Your task to perform on an android device: Open calendar and show me the first week of next month Image 0: 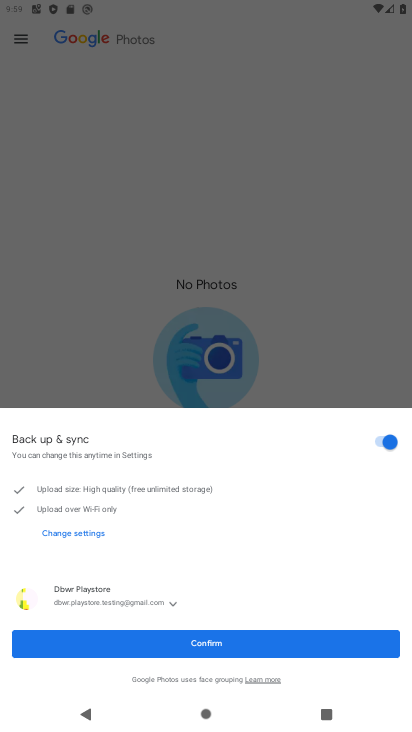
Step 0: press home button
Your task to perform on an android device: Open calendar and show me the first week of next month Image 1: 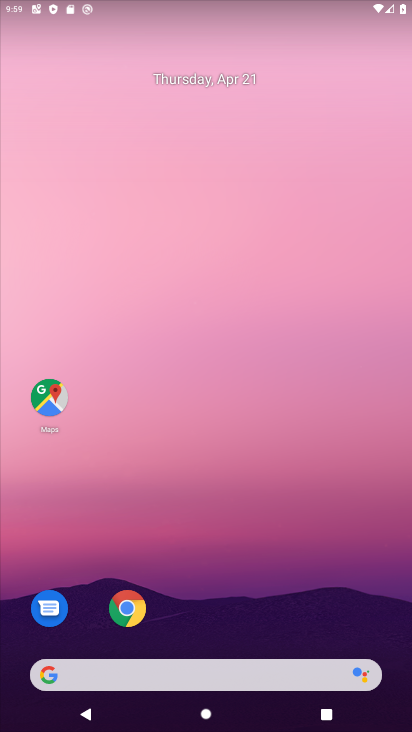
Step 1: drag from (208, 539) to (236, 93)
Your task to perform on an android device: Open calendar and show me the first week of next month Image 2: 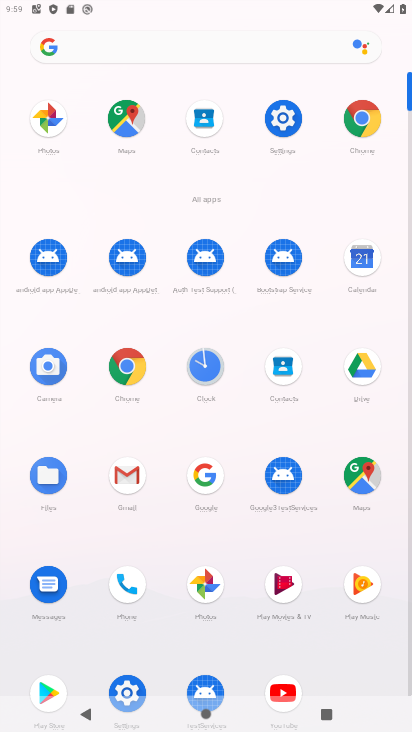
Step 2: click (370, 265)
Your task to perform on an android device: Open calendar and show me the first week of next month Image 3: 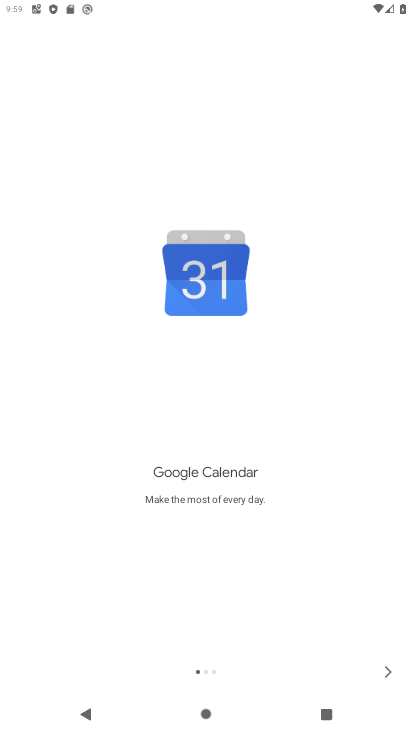
Step 3: click (382, 670)
Your task to perform on an android device: Open calendar and show me the first week of next month Image 4: 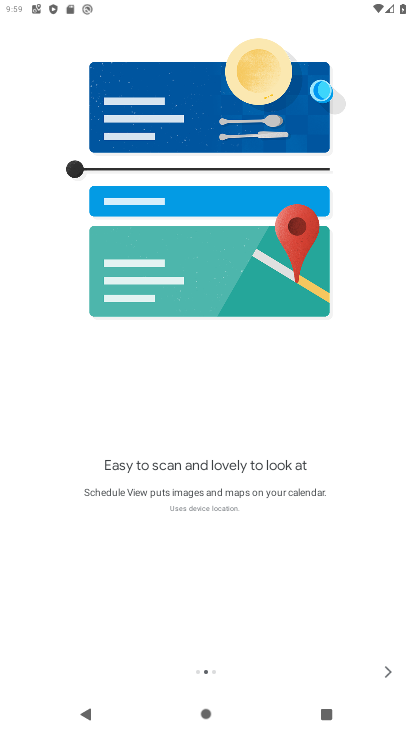
Step 4: click (386, 674)
Your task to perform on an android device: Open calendar and show me the first week of next month Image 5: 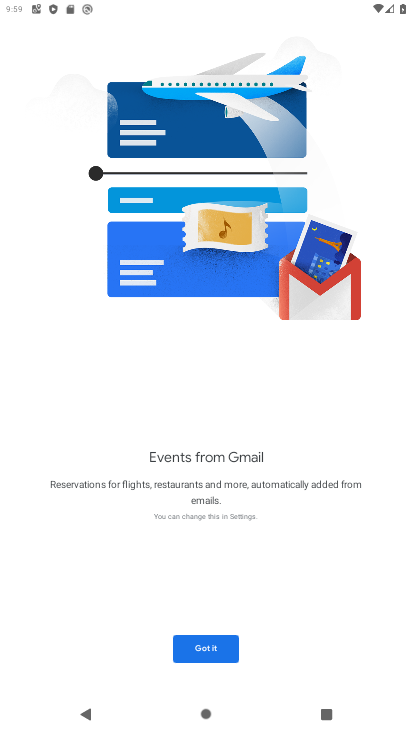
Step 5: click (204, 655)
Your task to perform on an android device: Open calendar and show me the first week of next month Image 6: 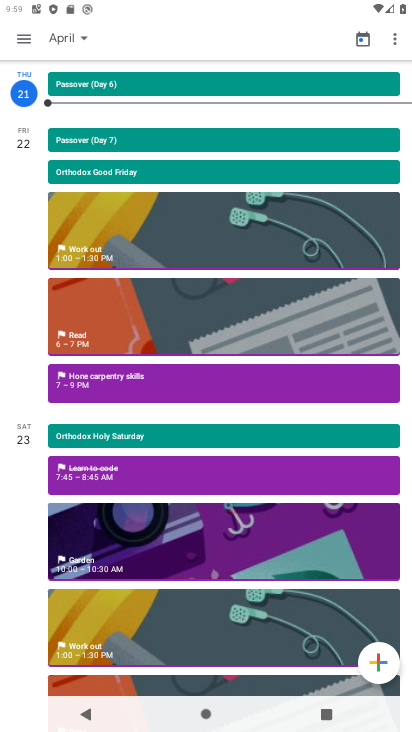
Step 6: click (80, 31)
Your task to perform on an android device: Open calendar and show me the first week of next month Image 7: 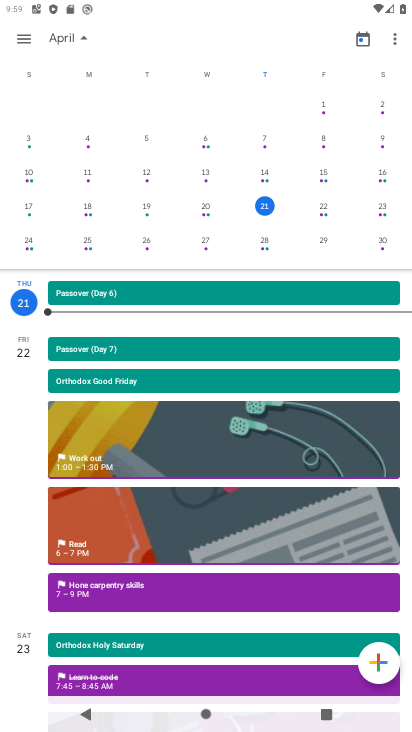
Step 7: drag from (254, 220) to (0, 222)
Your task to perform on an android device: Open calendar and show me the first week of next month Image 8: 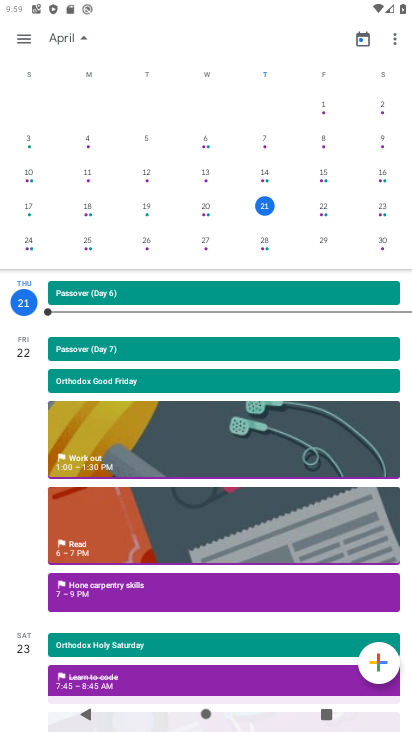
Step 8: drag from (322, 224) to (2, 219)
Your task to perform on an android device: Open calendar and show me the first week of next month Image 9: 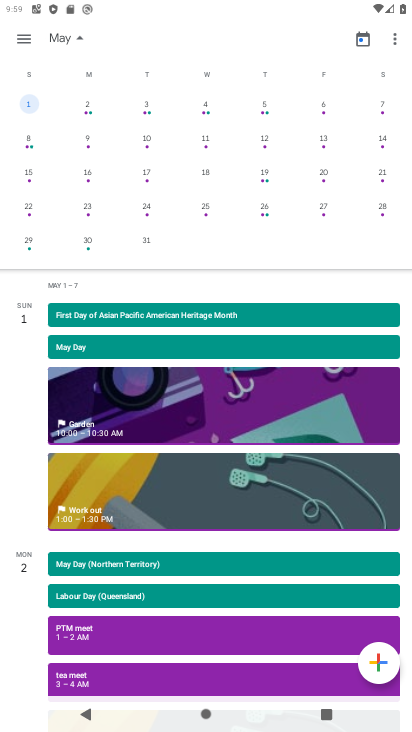
Step 9: click (81, 111)
Your task to perform on an android device: Open calendar and show me the first week of next month Image 10: 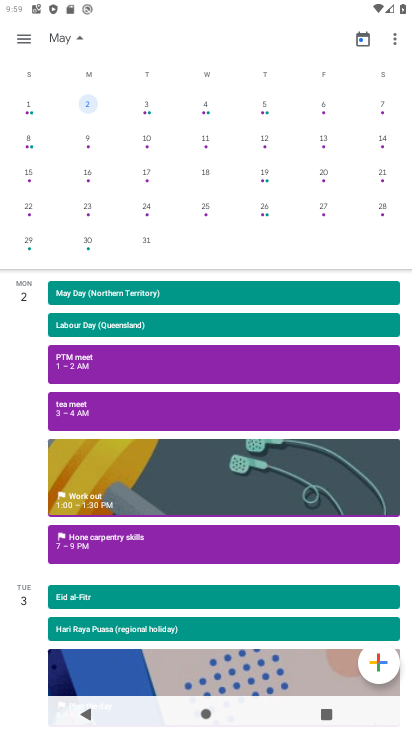
Step 10: click (145, 109)
Your task to perform on an android device: Open calendar and show me the first week of next month Image 11: 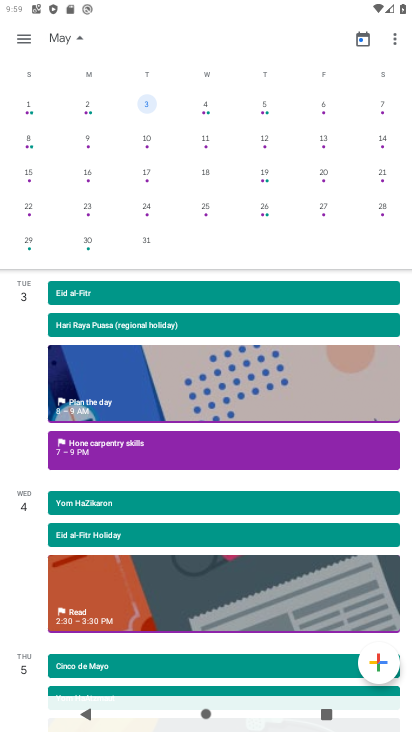
Step 11: click (200, 117)
Your task to perform on an android device: Open calendar and show me the first week of next month Image 12: 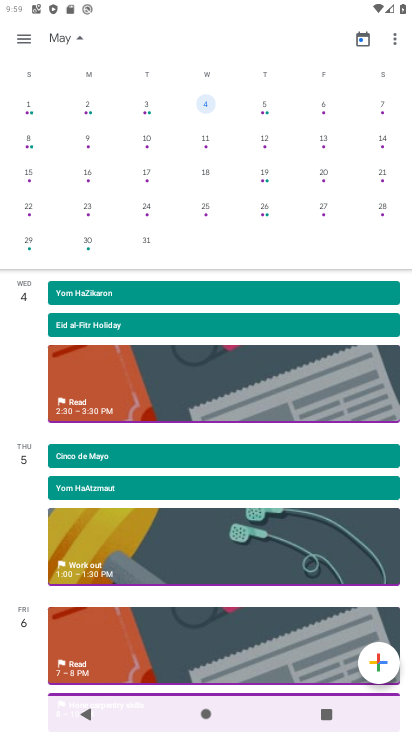
Step 12: click (272, 118)
Your task to perform on an android device: Open calendar and show me the first week of next month Image 13: 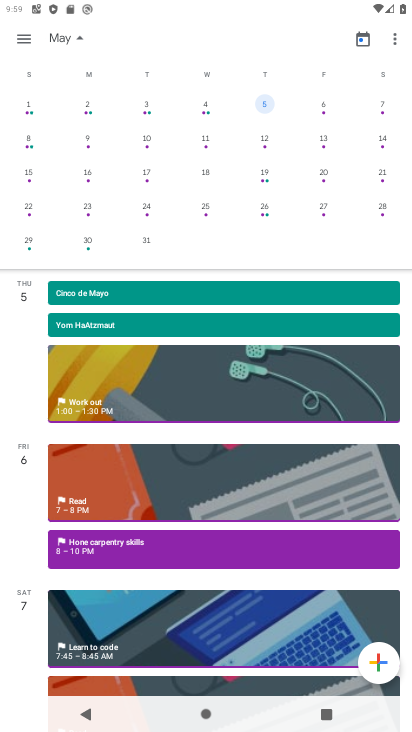
Step 13: click (322, 110)
Your task to perform on an android device: Open calendar and show me the first week of next month Image 14: 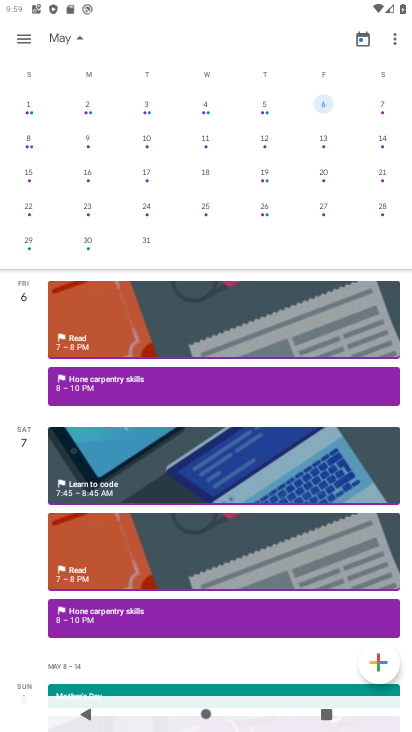
Step 14: click (382, 115)
Your task to perform on an android device: Open calendar and show me the first week of next month Image 15: 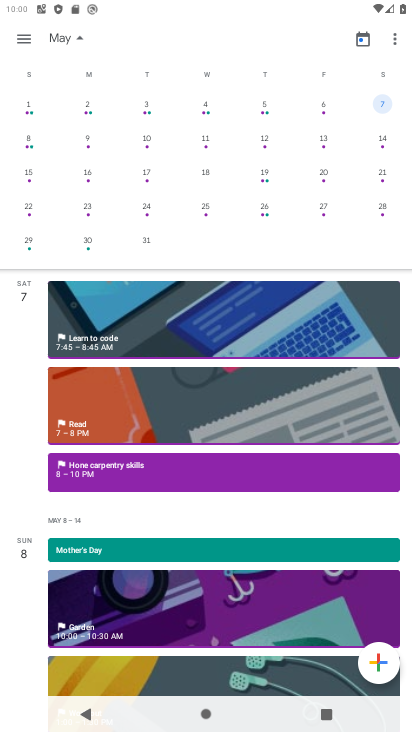
Step 15: task complete